Your task to perform on an android device: turn on wifi Image 0: 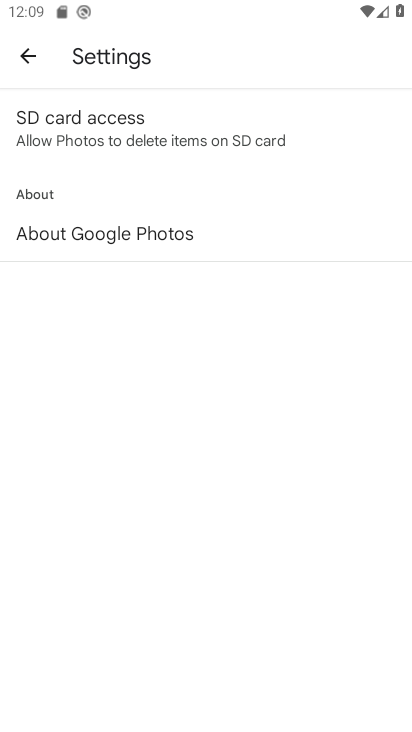
Step 0: drag from (215, 617) to (304, 206)
Your task to perform on an android device: turn on wifi Image 1: 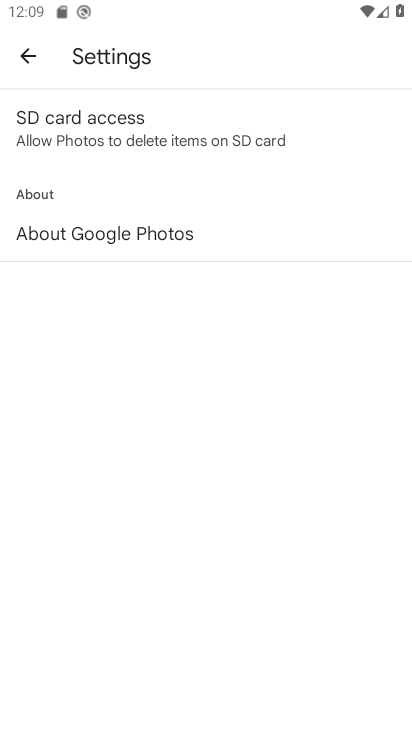
Step 1: press home button
Your task to perform on an android device: turn on wifi Image 2: 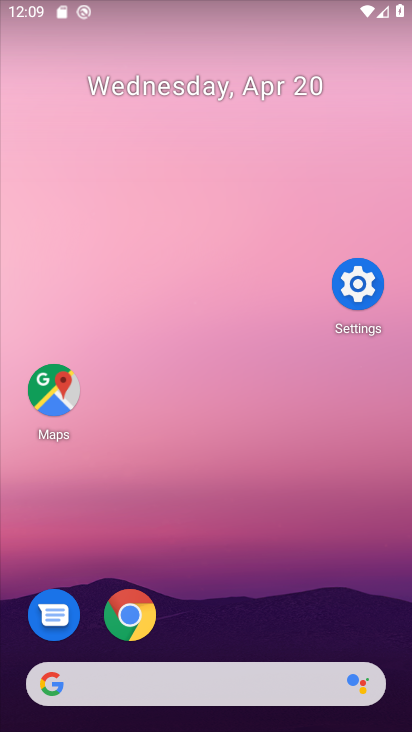
Step 2: drag from (191, 508) to (214, 136)
Your task to perform on an android device: turn on wifi Image 3: 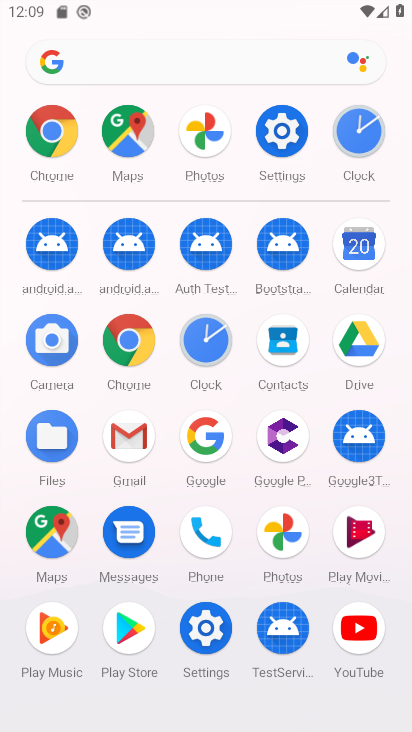
Step 3: click (278, 120)
Your task to perform on an android device: turn on wifi Image 4: 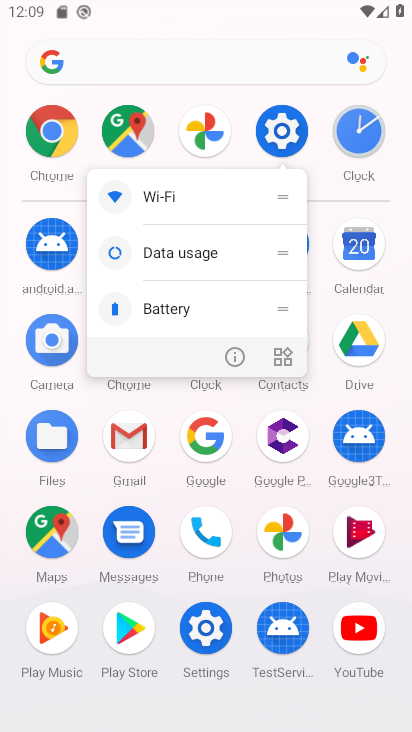
Step 4: click (235, 355)
Your task to perform on an android device: turn on wifi Image 5: 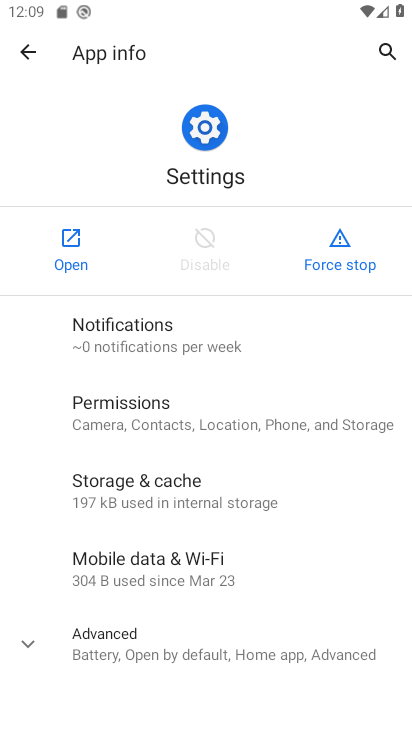
Step 5: click (70, 249)
Your task to perform on an android device: turn on wifi Image 6: 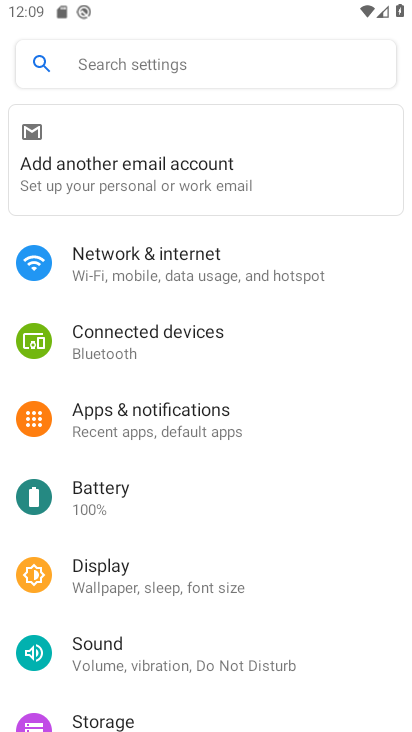
Step 6: drag from (191, 604) to (284, 249)
Your task to perform on an android device: turn on wifi Image 7: 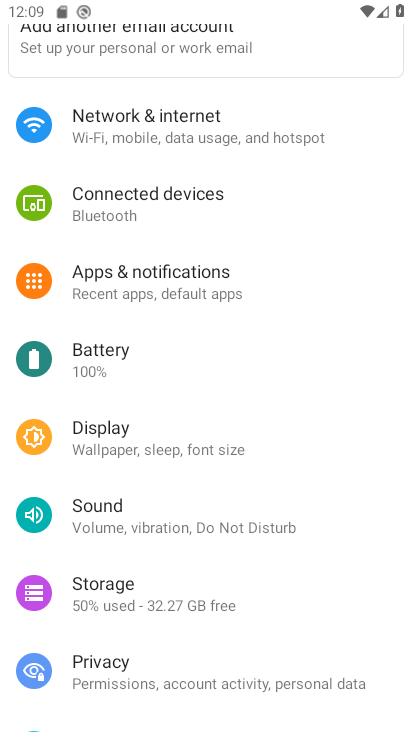
Step 7: drag from (231, 206) to (227, 475)
Your task to perform on an android device: turn on wifi Image 8: 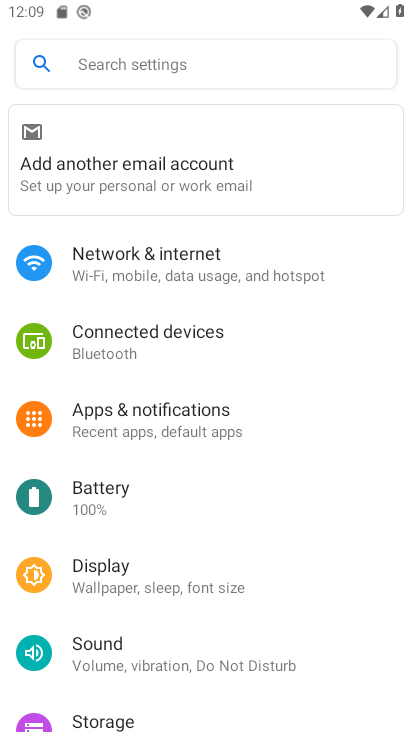
Step 8: click (166, 264)
Your task to perform on an android device: turn on wifi Image 9: 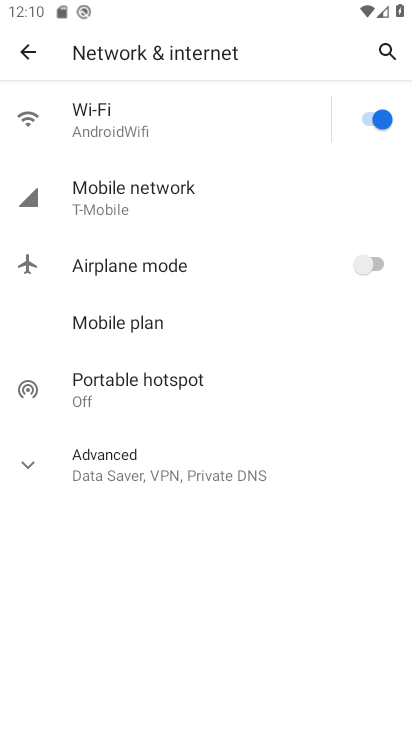
Step 9: click (260, 127)
Your task to perform on an android device: turn on wifi Image 10: 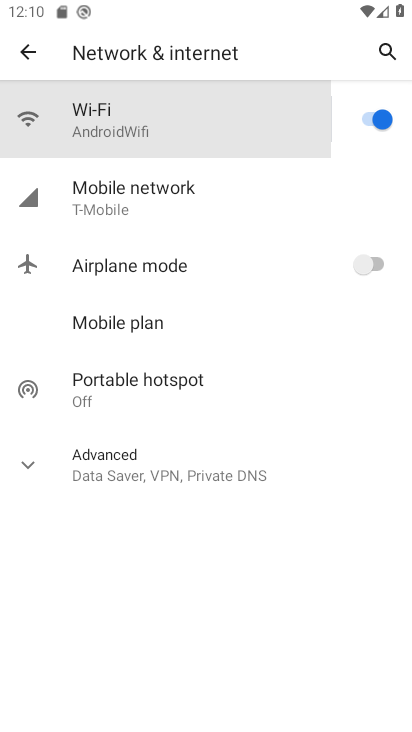
Step 10: task complete